Your task to perform on an android device: turn off data saver in the chrome app Image 0: 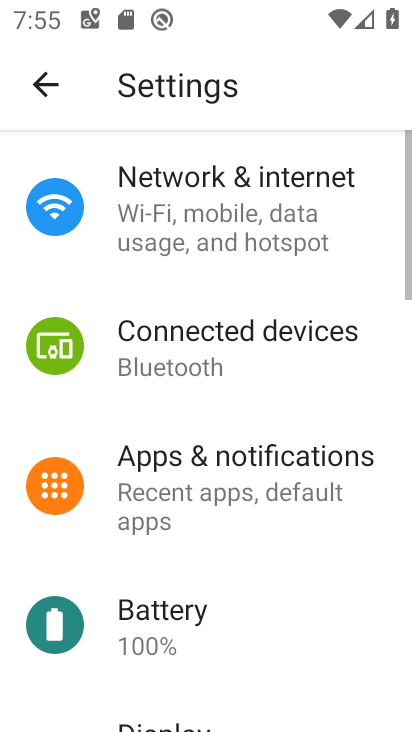
Step 0: press home button
Your task to perform on an android device: turn off data saver in the chrome app Image 1: 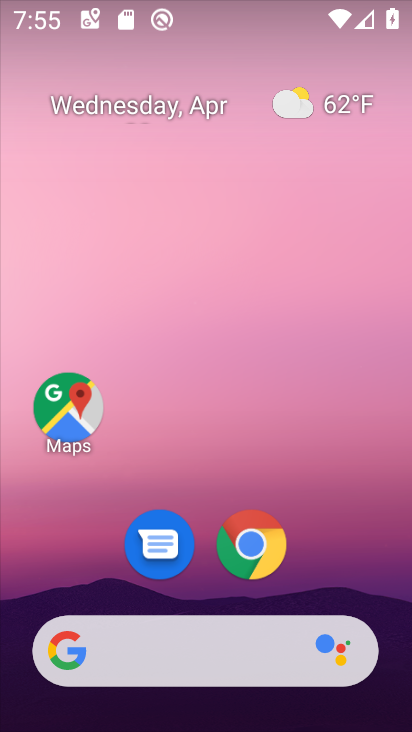
Step 1: click (250, 531)
Your task to perform on an android device: turn off data saver in the chrome app Image 2: 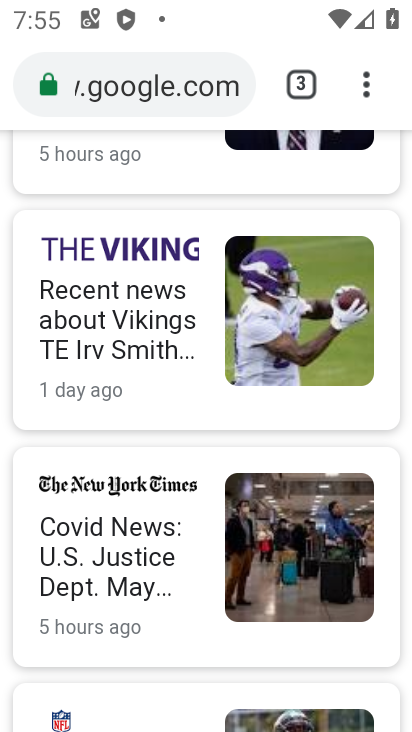
Step 2: drag from (363, 87) to (176, 599)
Your task to perform on an android device: turn off data saver in the chrome app Image 3: 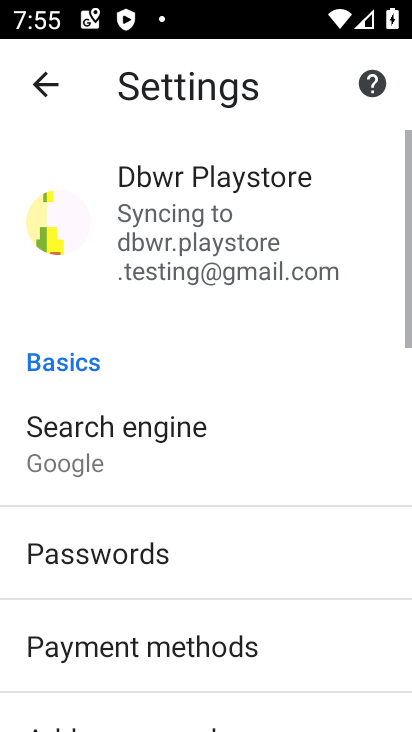
Step 3: drag from (327, 662) to (317, 206)
Your task to perform on an android device: turn off data saver in the chrome app Image 4: 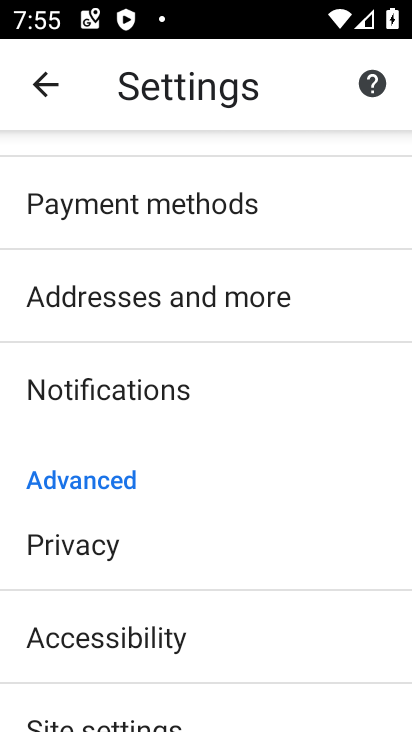
Step 4: drag from (299, 629) to (298, 305)
Your task to perform on an android device: turn off data saver in the chrome app Image 5: 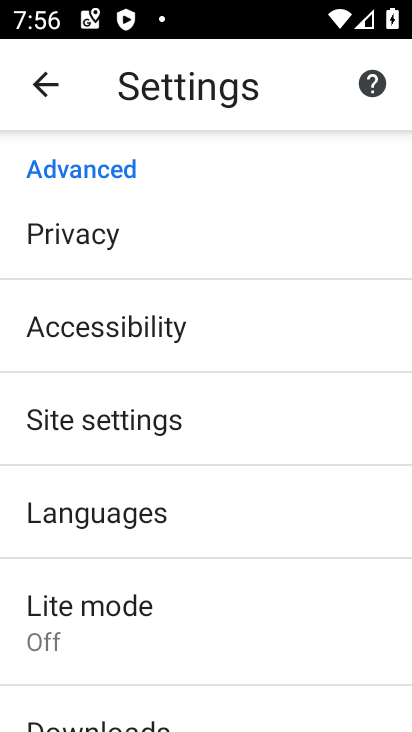
Step 5: click (104, 607)
Your task to perform on an android device: turn off data saver in the chrome app Image 6: 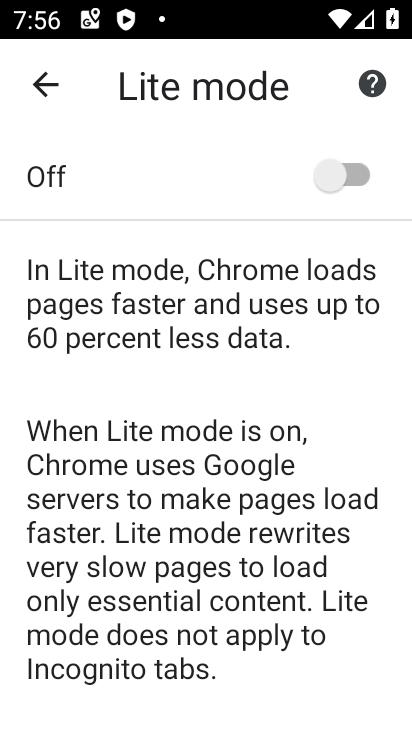
Step 6: task complete